Your task to perform on an android device: turn on airplane mode Image 0: 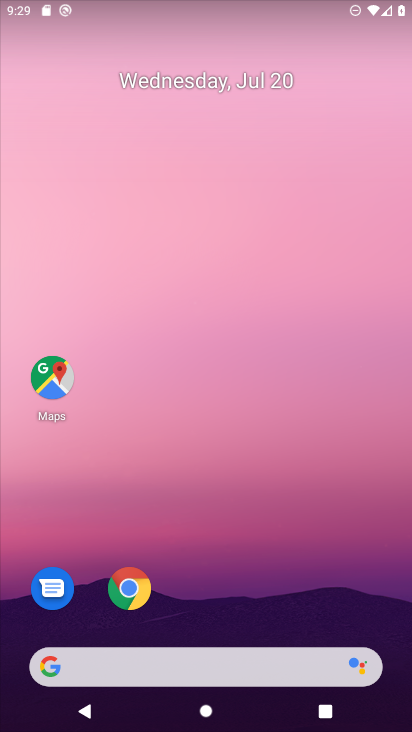
Step 0: drag from (213, 10) to (238, 434)
Your task to perform on an android device: turn on airplane mode Image 1: 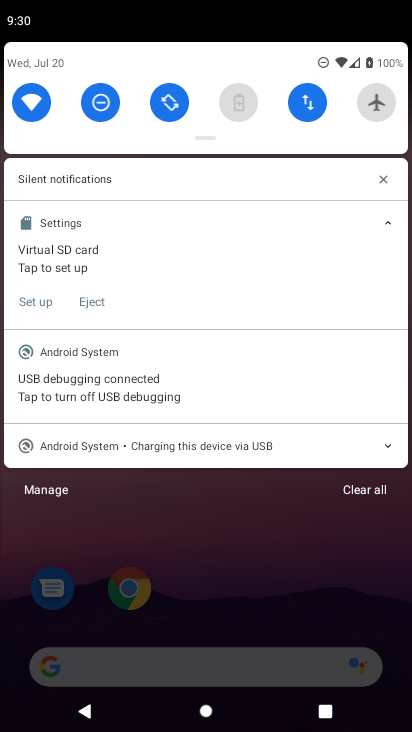
Step 1: click (376, 91)
Your task to perform on an android device: turn on airplane mode Image 2: 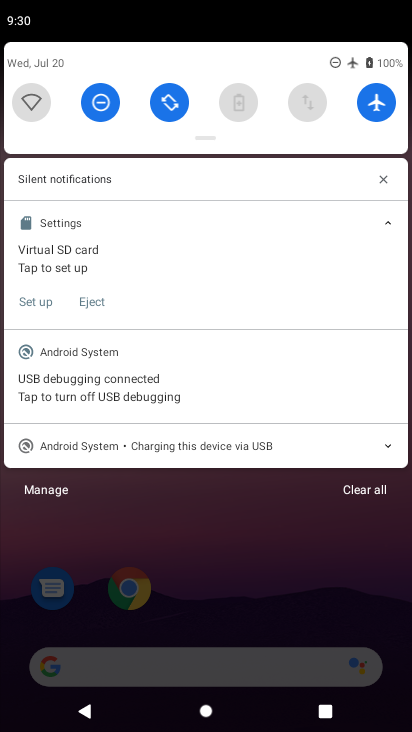
Step 2: task complete